Your task to perform on an android device: change timer sound Image 0: 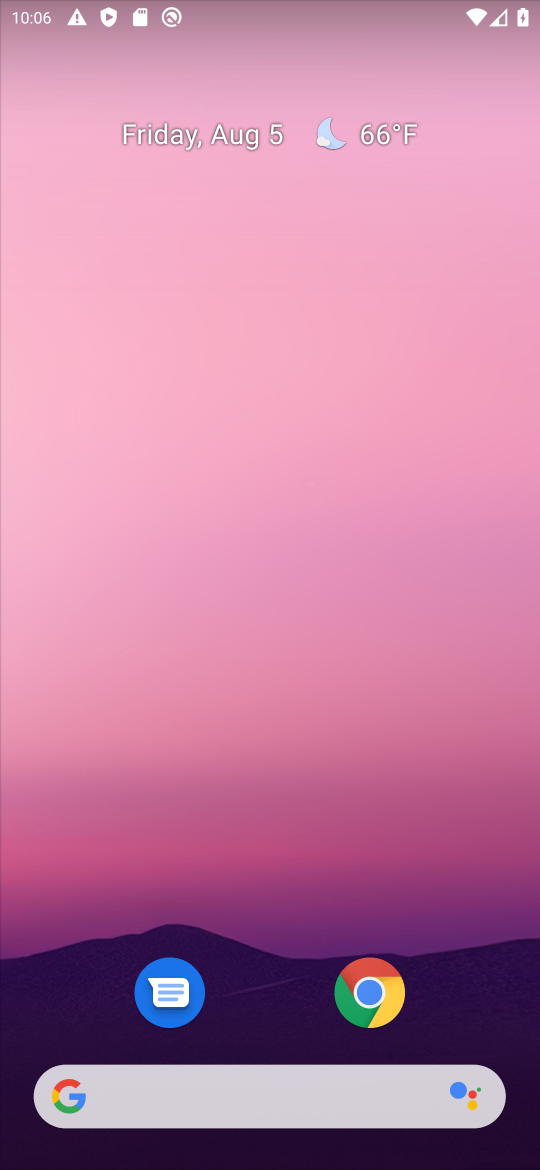
Step 0: drag from (204, 1051) to (257, 309)
Your task to perform on an android device: change timer sound Image 1: 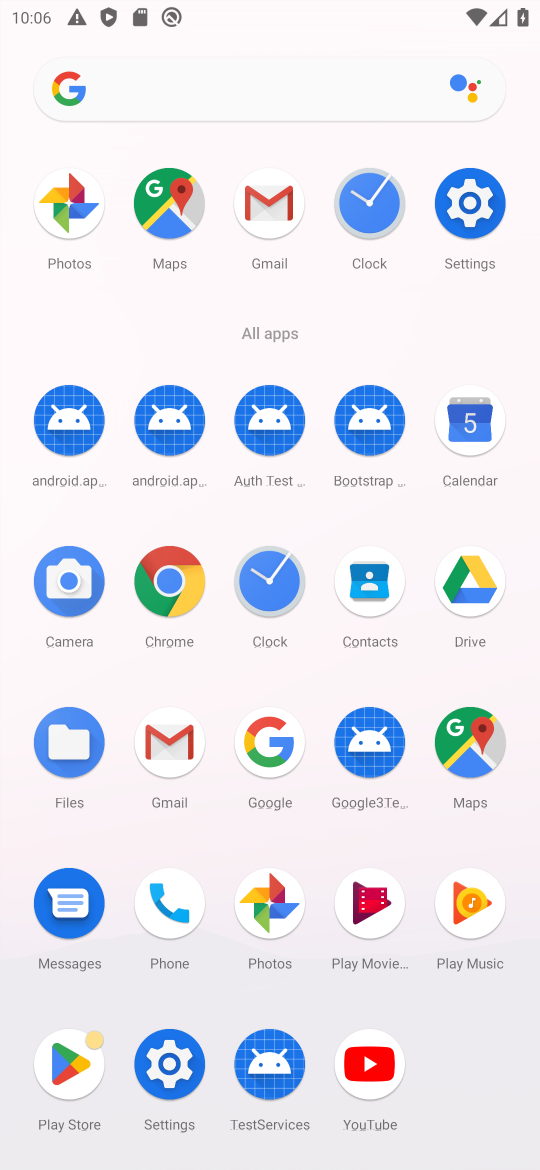
Step 1: click (270, 619)
Your task to perform on an android device: change timer sound Image 2: 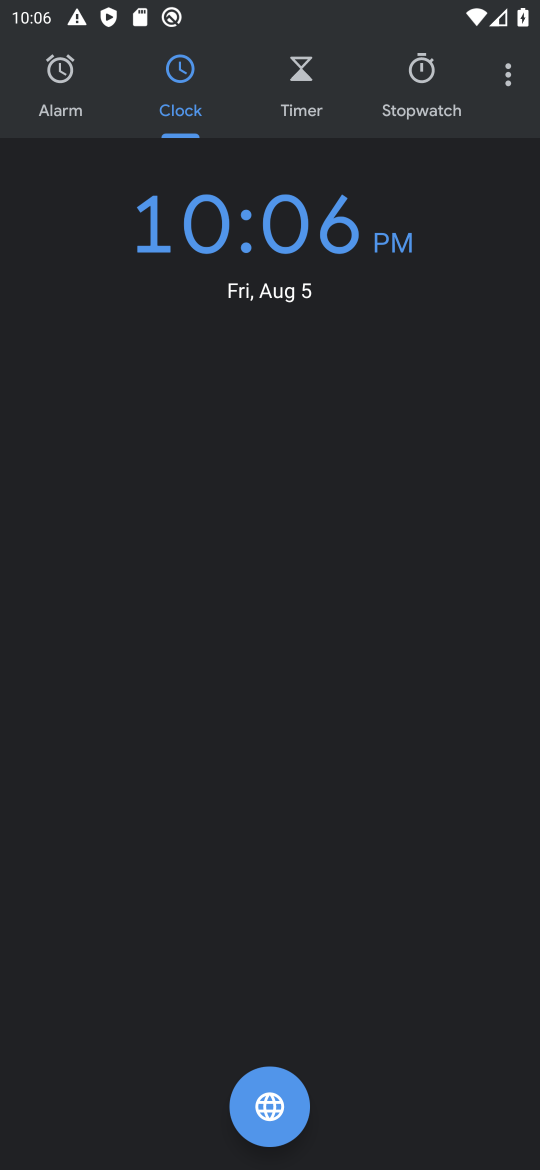
Step 2: click (517, 75)
Your task to perform on an android device: change timer sound Image 3: 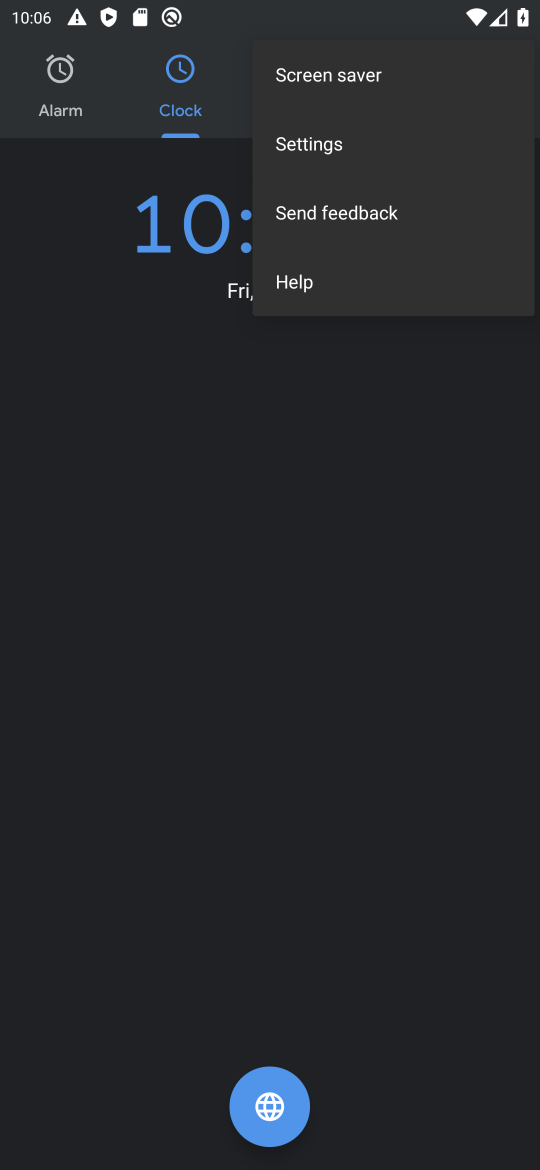
Step 3: click (309, 153)
Your task to perform on an android device: change timer sound Image 4: 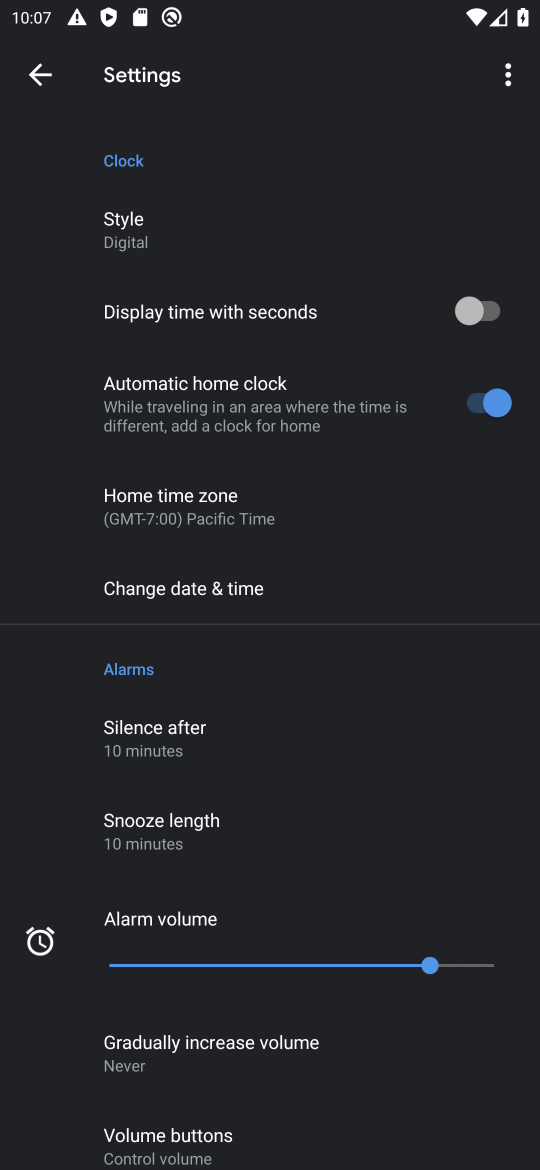
Step 4: drag from (228, 819) to (243, 247)
Your task to perform on an android device: change timer sound Image 5: 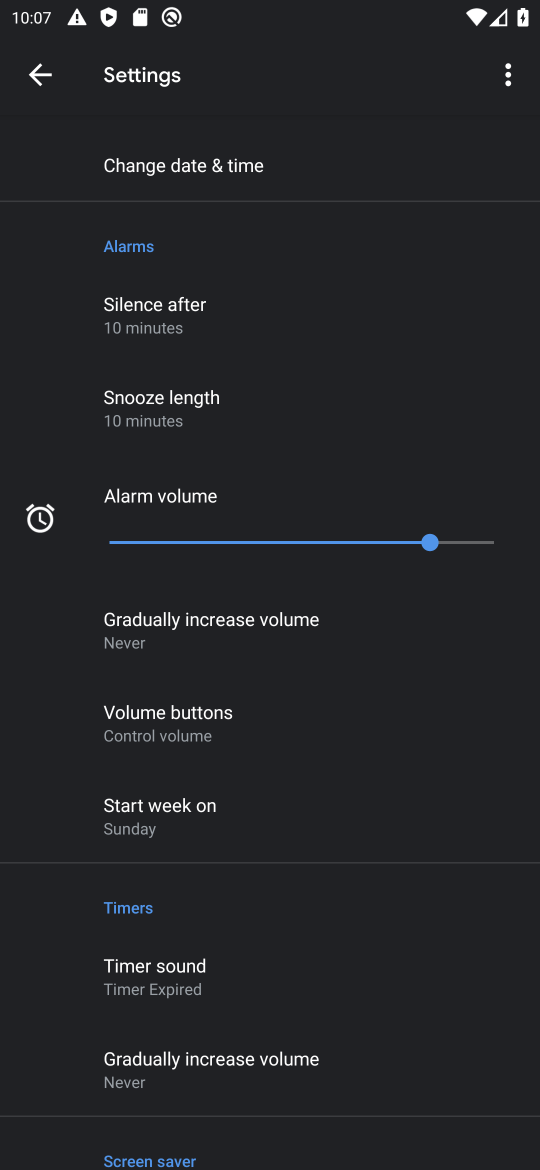
Step 5: click (220, 981)
Your task to perform on an android device: change timer sound Image 6: 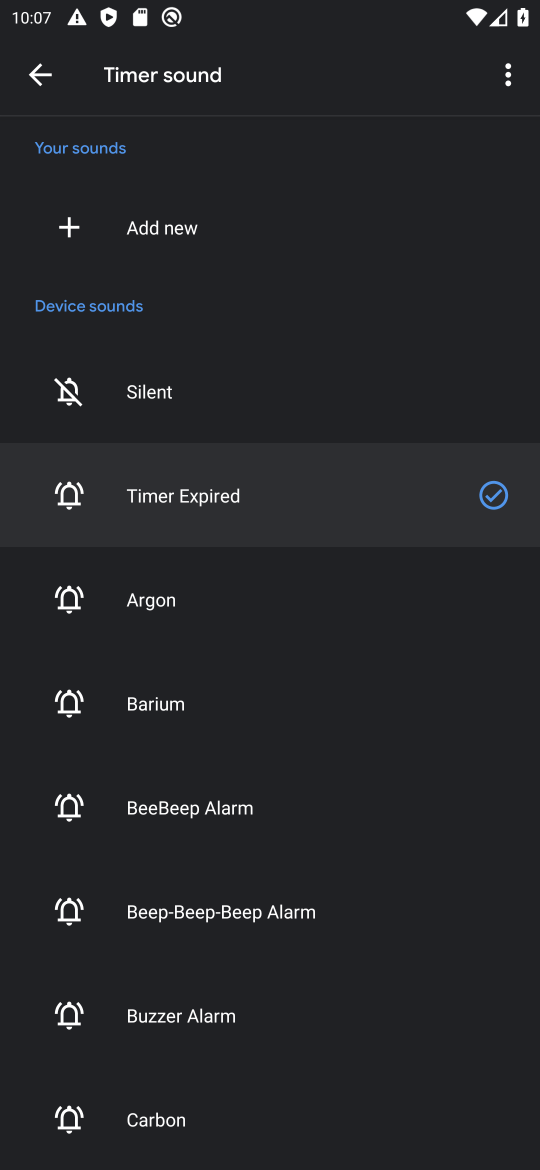
Step 6: click (212, 798)
Your task to perform on an android device: change timer sound Image 7: 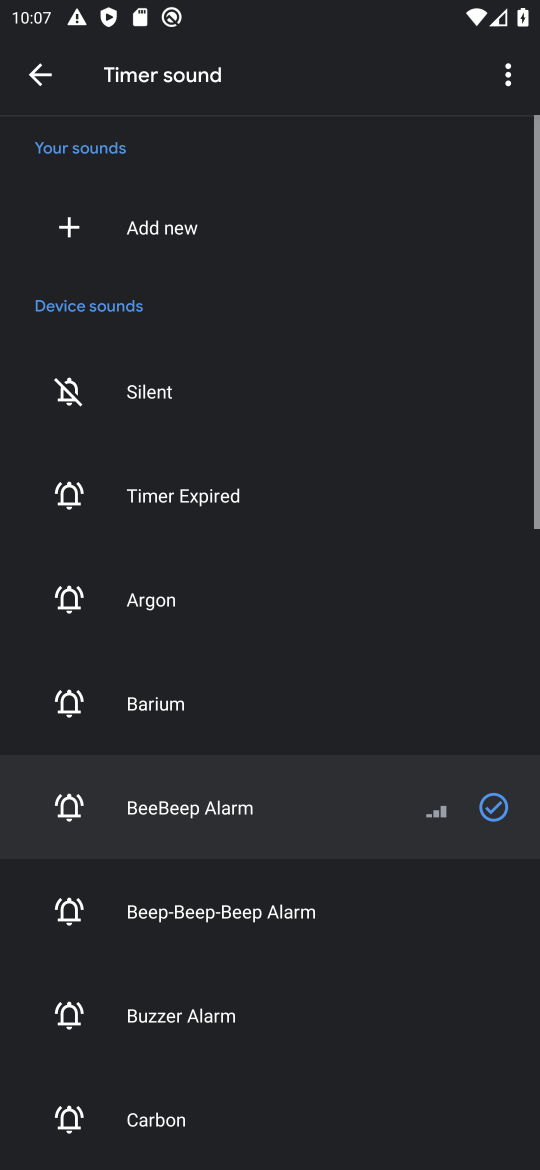
Step 7: task complete